Your task to perform on an android device: turn off notifications settings in the gmail app Image 0: 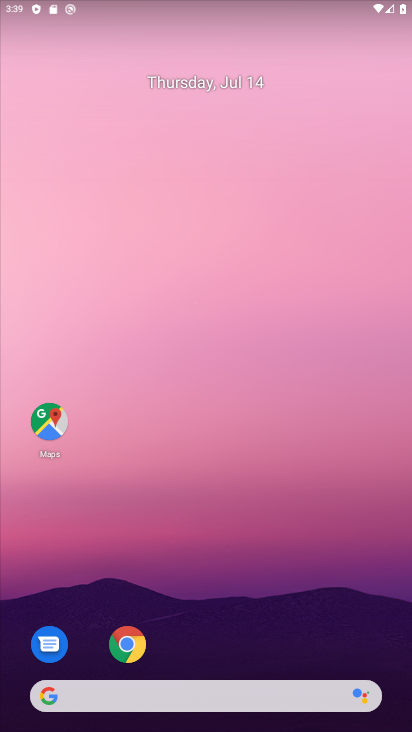
Step 0: click (299, 319)
Your task to perform on an android device: turn off notifications settings in the gmail app Image 1: 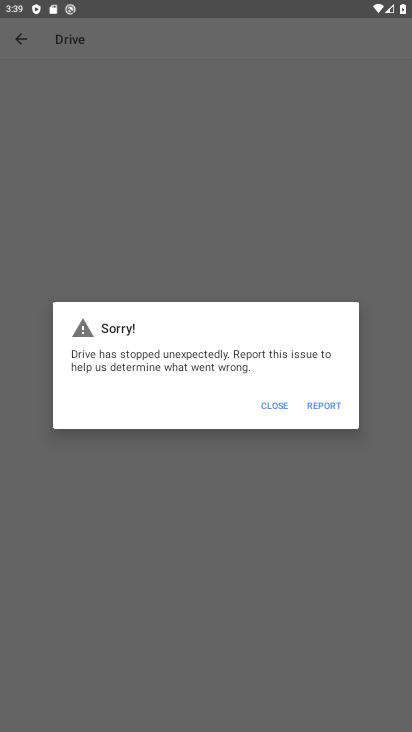
Step 1: press home button
Your task to perform on an android device: turn off notifications settings in the gmail app Image 2: 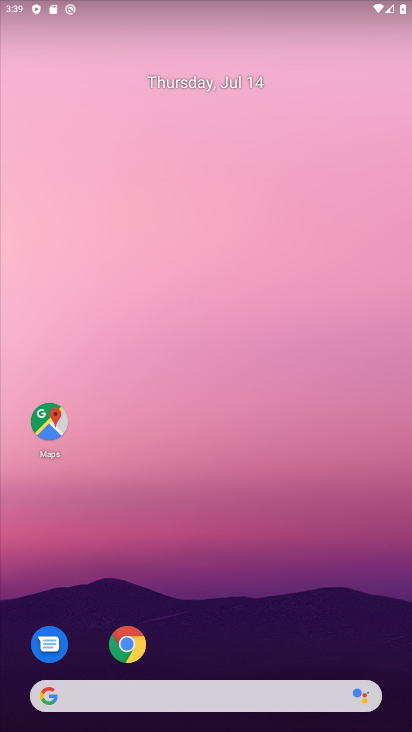
Step 2: drag from (244, 643) to (326, 90)
Your task to perform on an android device: turn off notifications settings in the gmail app Image 3: 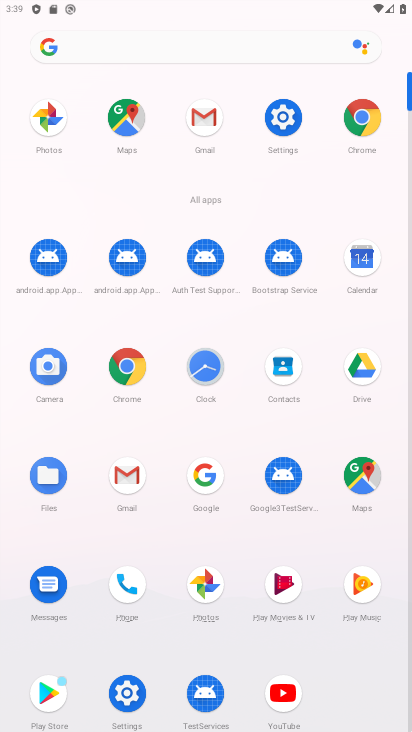
Step 3: click (126, 472)
Your task to perform on an android device: turn off notifications settings in the gmail app Image 4: 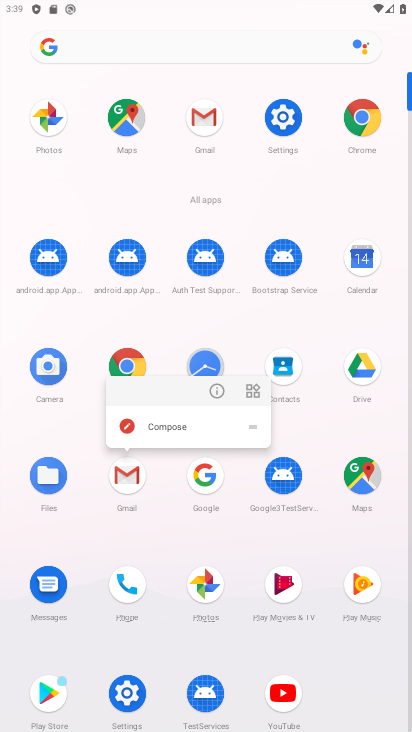
Step 4: click (219, 382)
Your task to perform on an android device: turn off notifications settings in the gmail app Image 5: 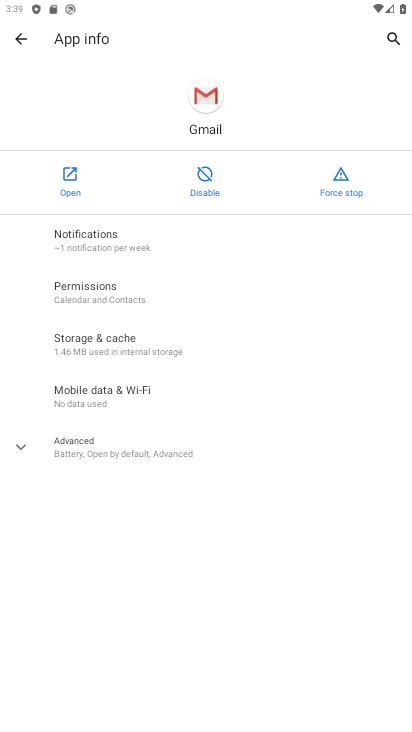
Step 5: click (99, 231)
Your task to perform on an android device: turn off notifications settings in the gmail app Image 6: 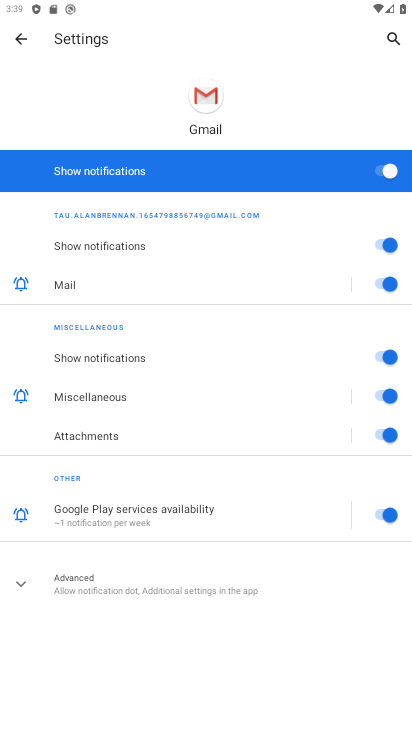
Step 6: click (352, 164)
Your task to perform on an android device: turn off notifications settings in the gmail app Image 7: 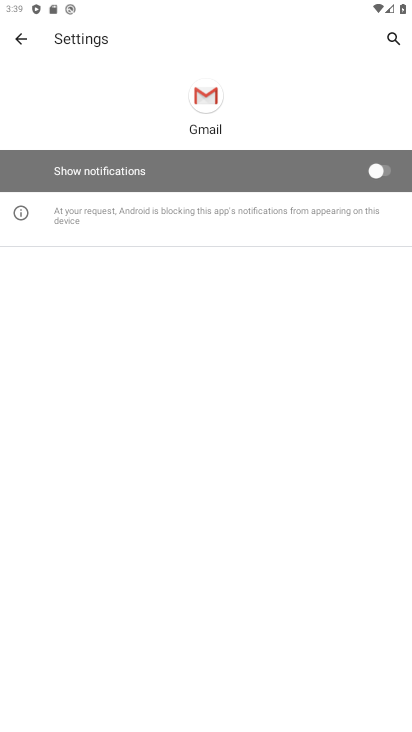
Step 7: task complete